Your task to perform on an android device: Do I have any events this weekend? Image 0: 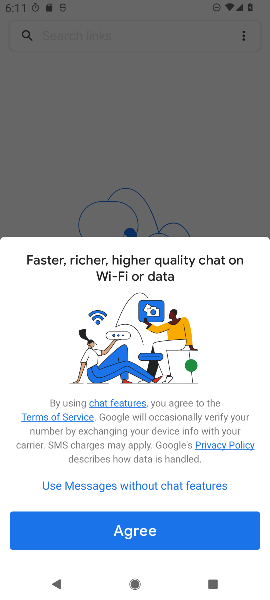
Step 0: press home button
Your task to perform on an android device: Do I have any events this weekend? Image 1: 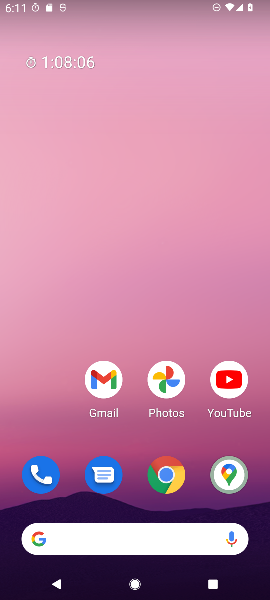
Step 1: drag from (62, 434) to (58, 209)
Your task to perform on an android device: Do I have any events this weekend? Image 2: 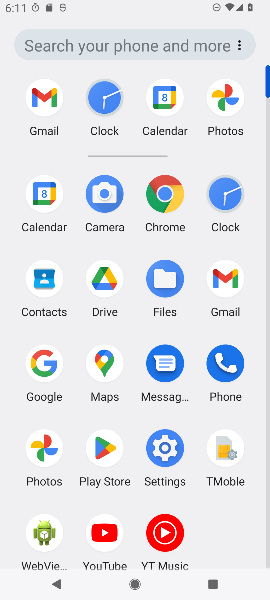
Step 2: click (49, 192)
Your task to perform on an android device: Do I have any events this weekend? Image 3: 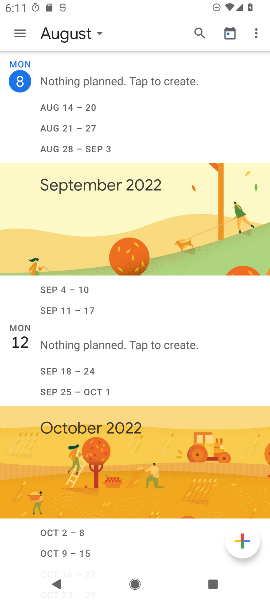
Step 3: click (97, 30)
Your task to perform on an android device: Do I have any events this weekend? Image 4: 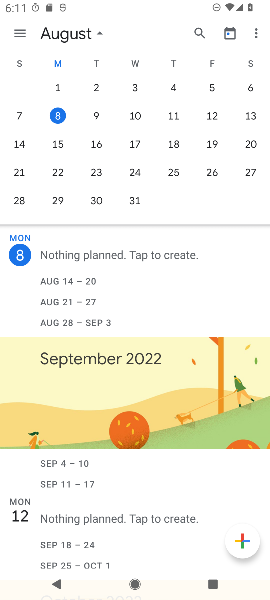
Step 4: click (252, 115)
Your task to perform on an android device: Do I have any events this weekend? Image 5: 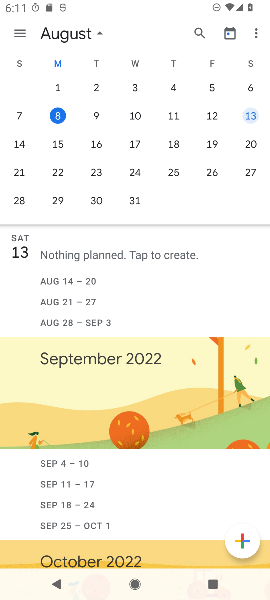
Step 5: task complete